Your task to perform on an android device: turn off sleep mode Image 0: 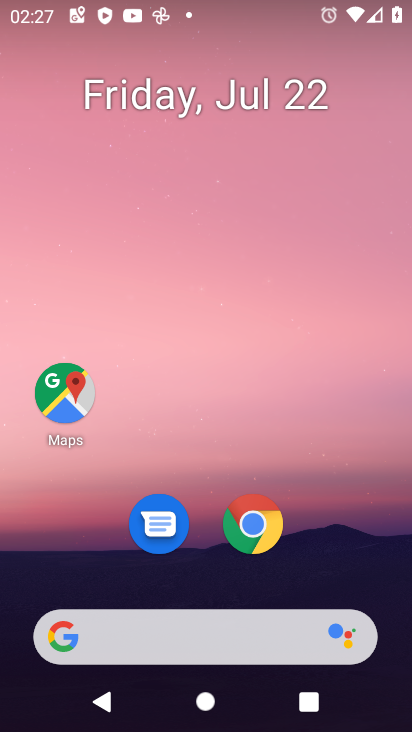
Step 0: press home button
Your task to perform on an android device: turn off sleep mode Image 1: 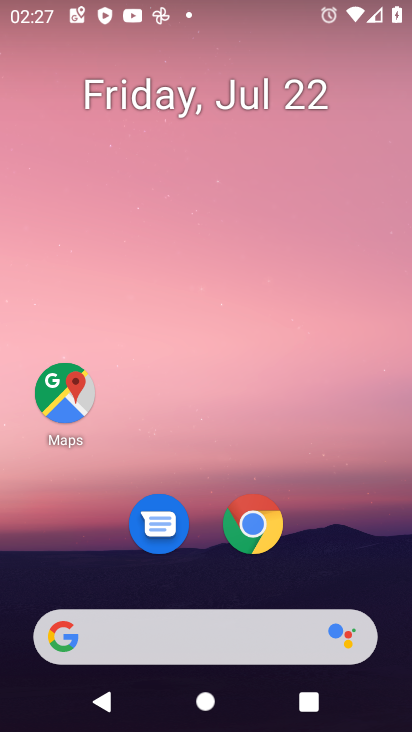
Step 1: drag from (187, 642) to (291, 58)
Your task to perform on an android device: turn off sleep mode Image 2: 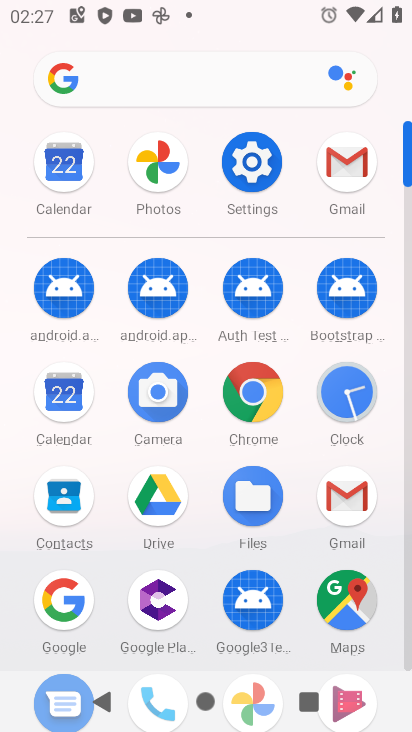
Step 2: click (250, 161)
Your task to perform on an android device: turn off sleep mode Image 3: 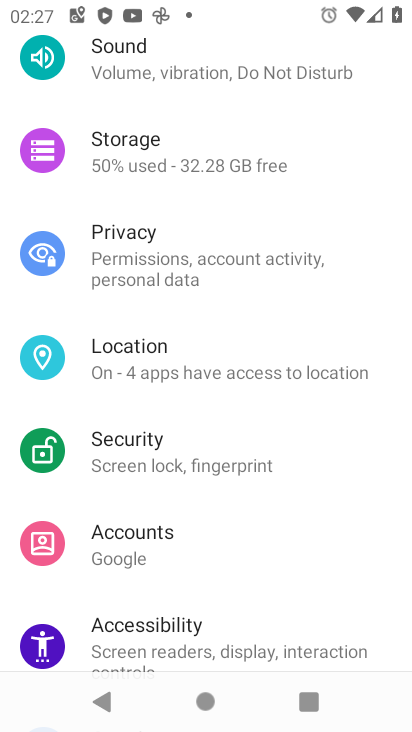
Step 3: drag from (285, 140) to (258, 466)
Your task to perform on an android device: turn off sleep mode Image 4: 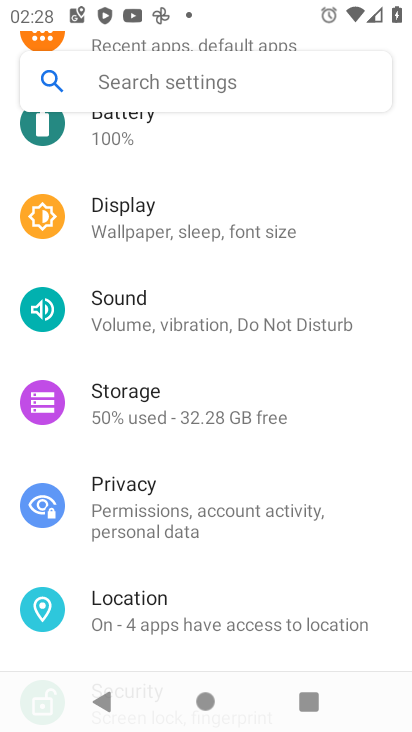
Step 4: click (221, 223)
Your task to perform on an android device: turn off sleep mode Image 5: 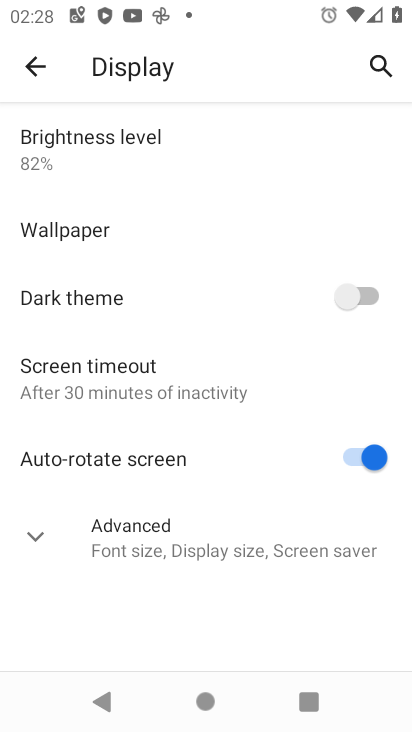
Step 5: task complete